Your task to perform on an android device: turn on notifications settings in the gmail app Image 0: 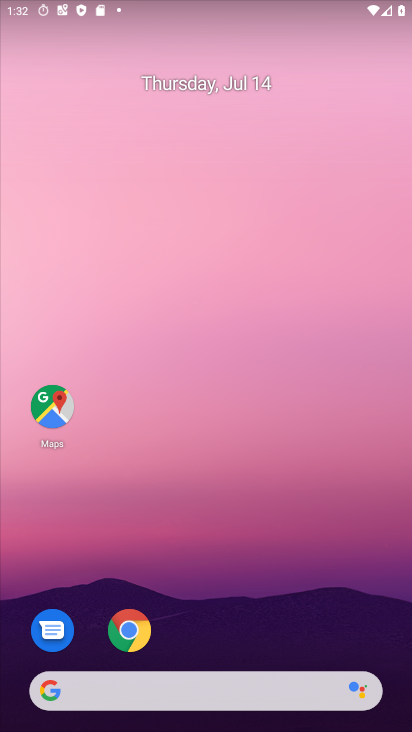
Step 0: drag from (258, 448) to (247, 242)
Your task to perform on an android device: turn on notifications settings in the gmail app Image 1: 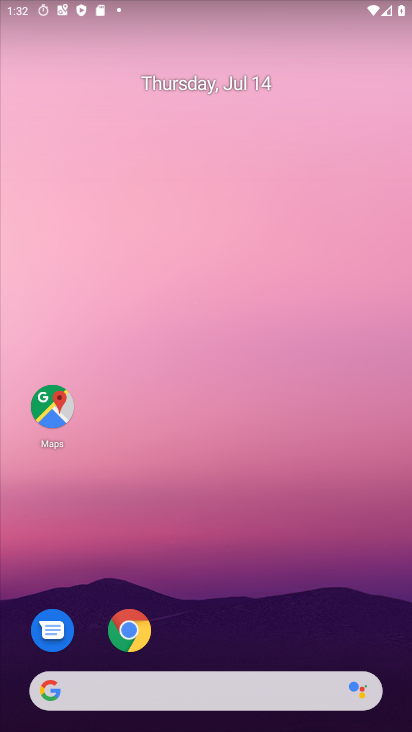
Step 1: drag from (200, 670) to (216, 89)
Your task to perform on an android device: turn on notifications settings in the gmail app Image 2: 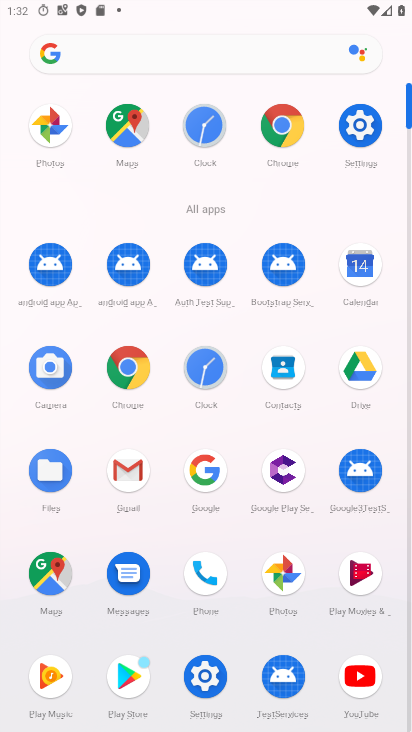
Step 2: click (130, 484)
Your task to perform on an android device: turn on notifications settings in the gmail app Image 3: 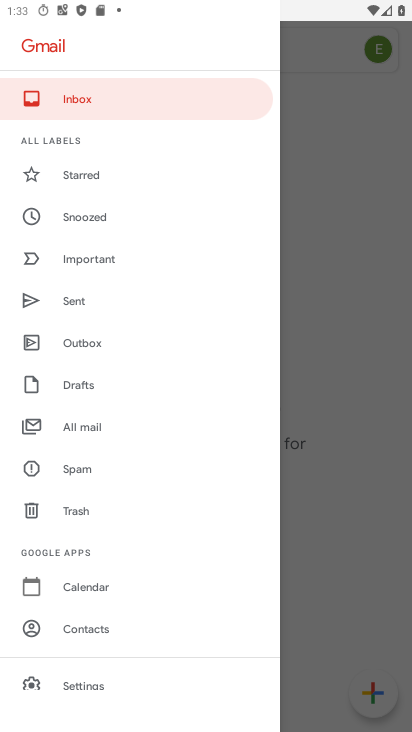
Step 3: drag from (87, 676) to (93, 397)
Your task to perform on an android device: turn on notifications settings in the gmail app Image 4: 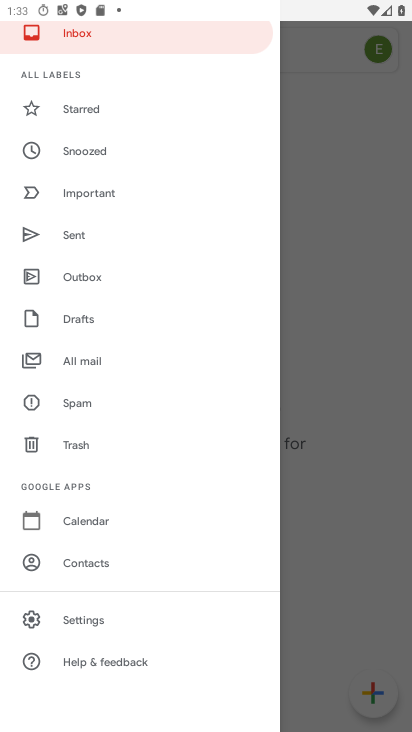
Step 4: click (85, 621)
Your task to perform on an android device: turn on notifications settings in the gmail app Image 5: 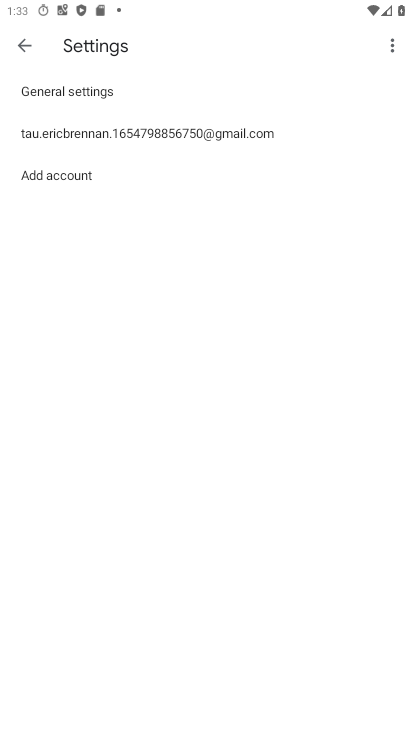
Step 5: click (149, 125)
Your task to perform on an android device: turn on notifications settings in the gmail app Image 6: 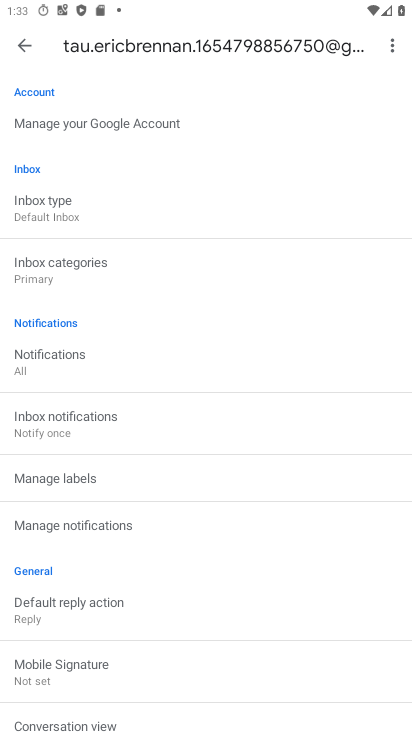
Step 6: click (98, 525)
Your task to perform on an android device: turn on notifications settings in the gmail app Image 7: 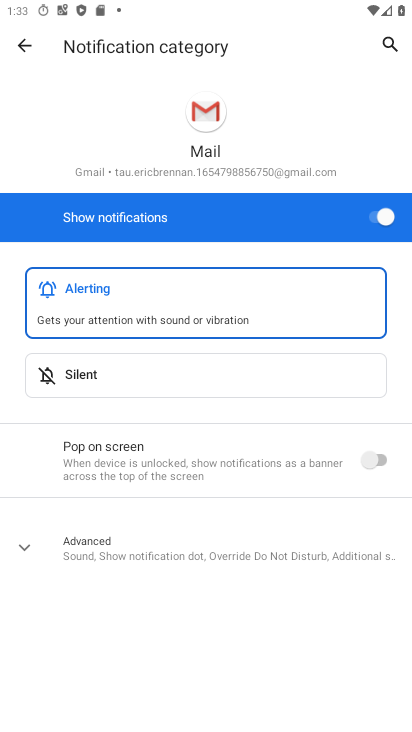
Step 7: click (391, 223)
Your task to perform on an android device: turn on notifications settings in the gmail app Image 8: 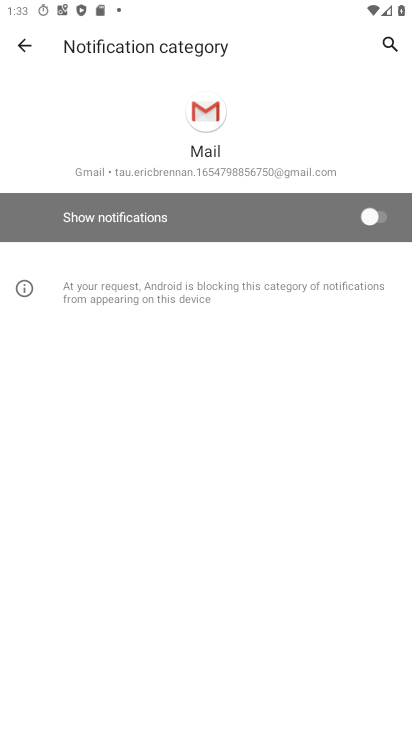
Step 8: task complete